Your task to perform on an android device: Go to eBay Image 0: 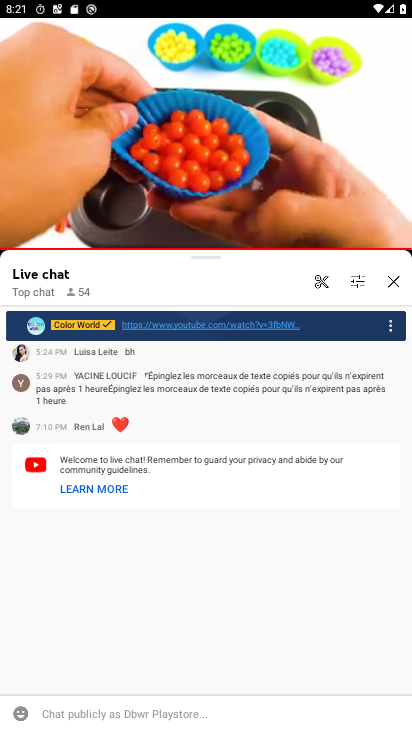
Step 0: press home button
Your task to perform on an android device: Go to eBay Image 1: 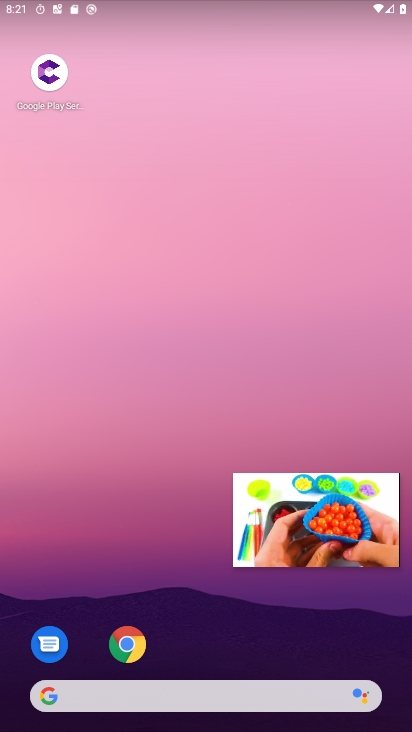
Step 1: click (307, 520)
Your task to perform on an android device: Go to eBay Image 2: 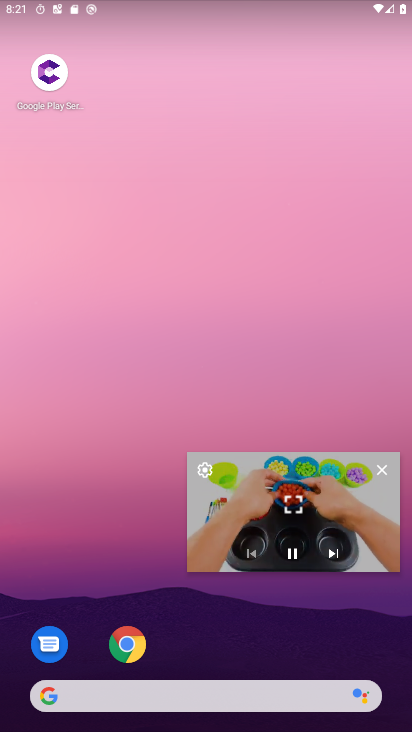
Step 2: click (379, 467)
Your task to perform on an android device: Go to eBay Image 3: 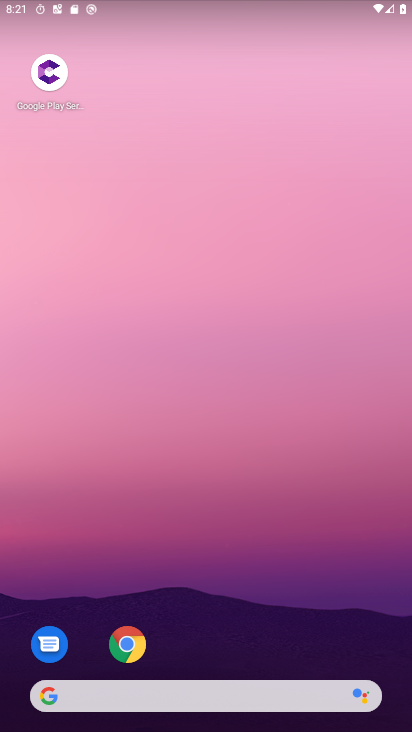
Step 3: click (125, 644)
Your task to perform on an android device: Go to eBay Image 4: 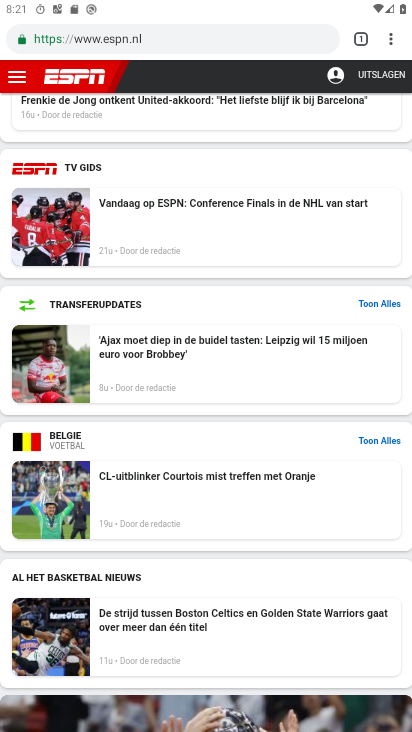
Step 4: click (356, 27)
Your task to perform on an android device: Go to eBay Image 5: 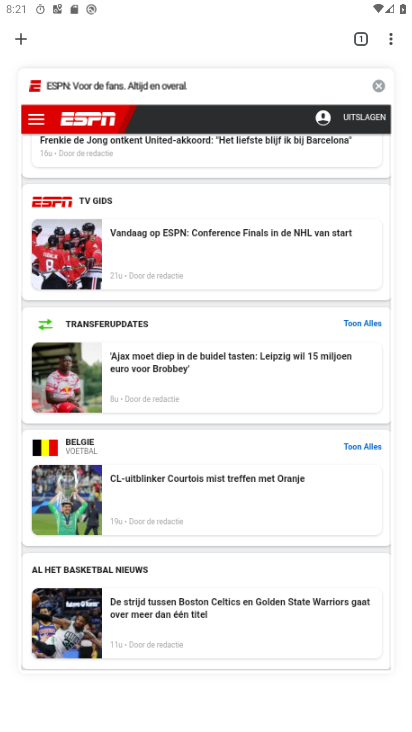
Step 5: click (15, 36)
Your task to perform on an android device: Go to eBay Image 6: 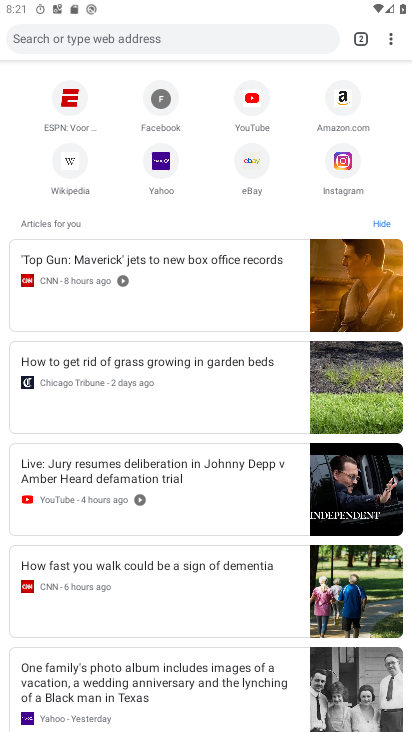
Step 6: click (247, 159)
Your task to perform on an android device: Go to eBay Image 7: 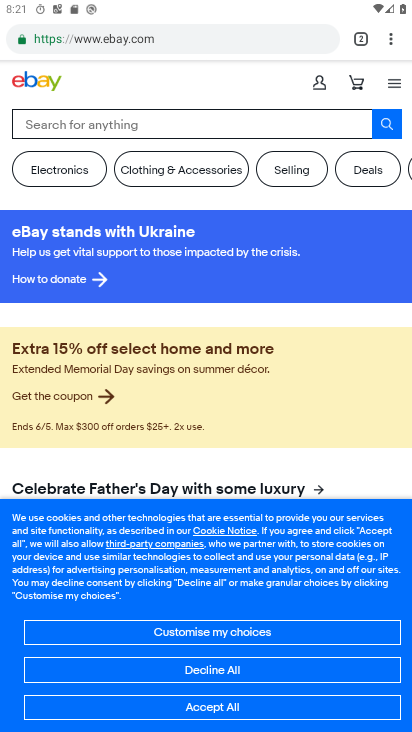
Step 7: drag from (201, 568) to (191, 163)
Your task to perform on an android device: Go to eBay Image 8: 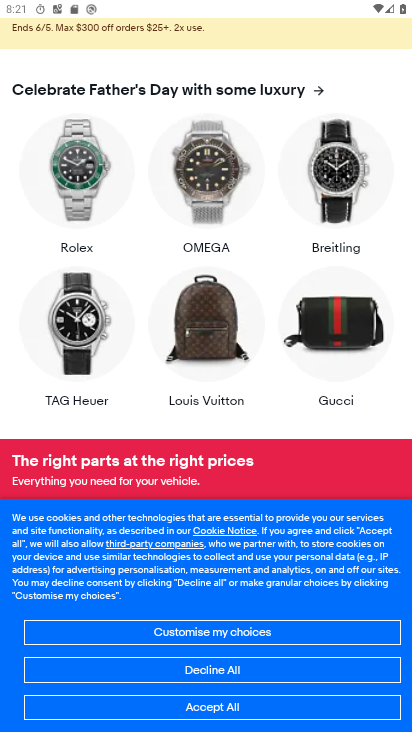
Step 8: click (211, 704)
Your task to perform on an android device: Go to eBay Image 9: 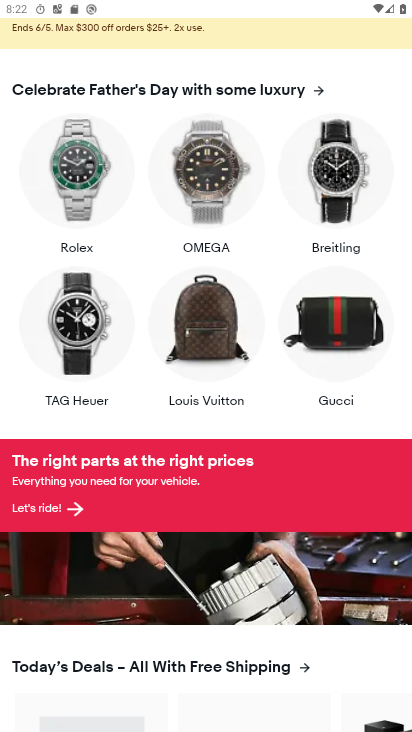
Step 9: task complete